Your task to perform on an android device: find snoozed emails in the gmail app Image 0: 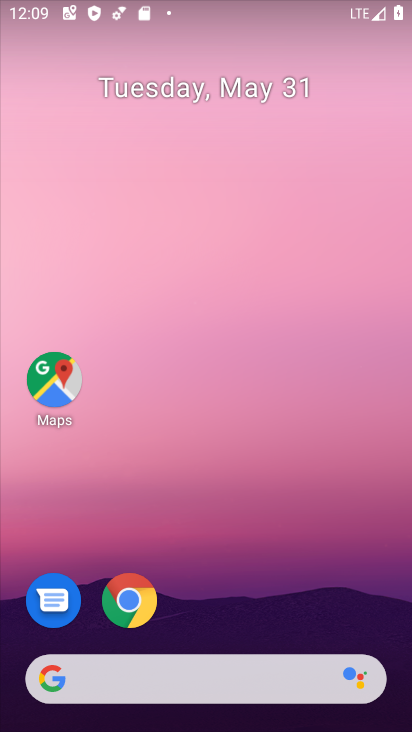
Step 0: drag from (229, 729) to (218, 49)
Your task to perform on an android device: find snoozed emails in the gmail app Image 1: 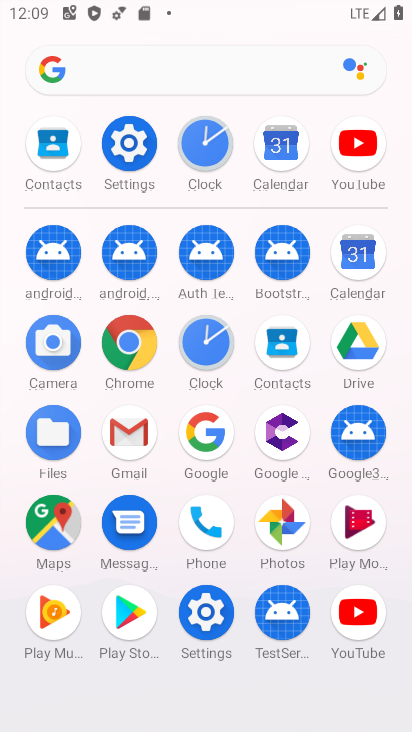
Step 1: click (131, 438)
Your task to perform on an android device: find snoozed emails in the gmail app Image 2: 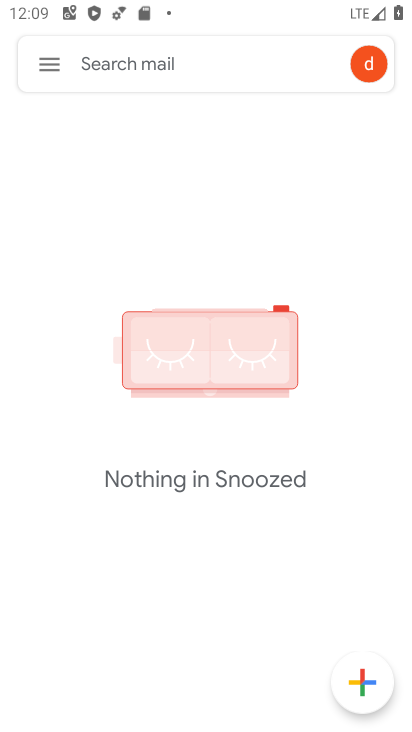
Step 2: click (55, 65)
Your task to perform on an android device: find snoozed emails in the gmail app Image 3: 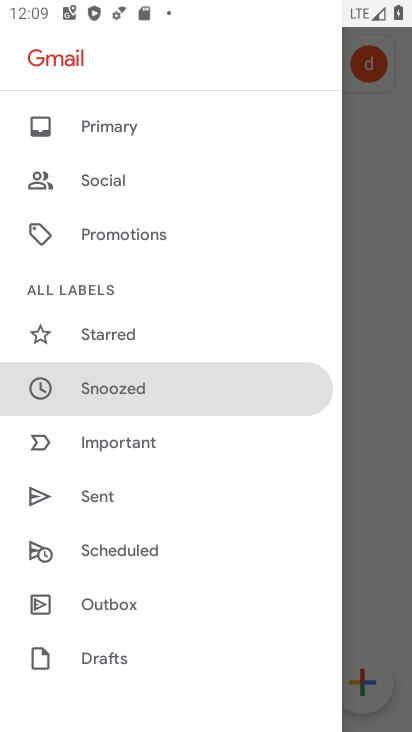
Step 3: click (108, 389)
Your task to perform on an android device: find snoozed emails in the gmail app Image 4: 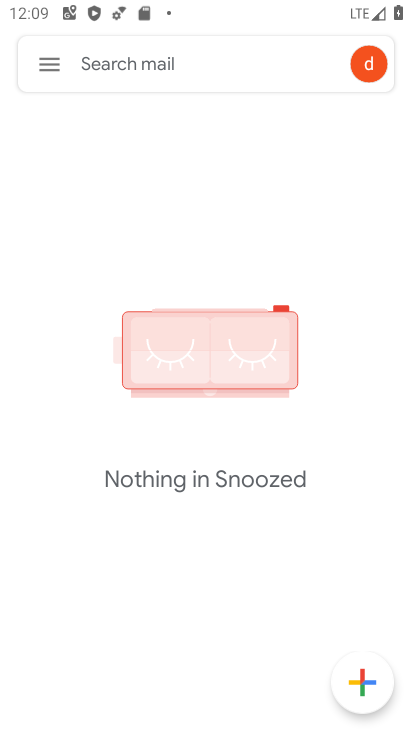
Step 4: task complete